Your task to perform on an android device: Is it going to rain tomorrow? Image 0: 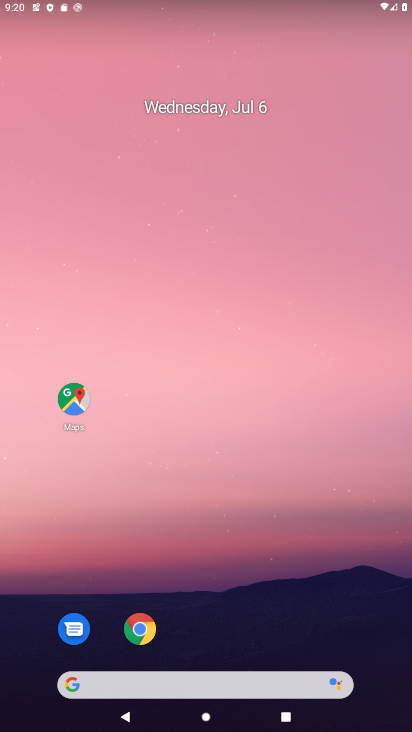
Step 0: click (237, 50)
Your task to perform on an android device: Is it going to rain tomorrow? Image 1: 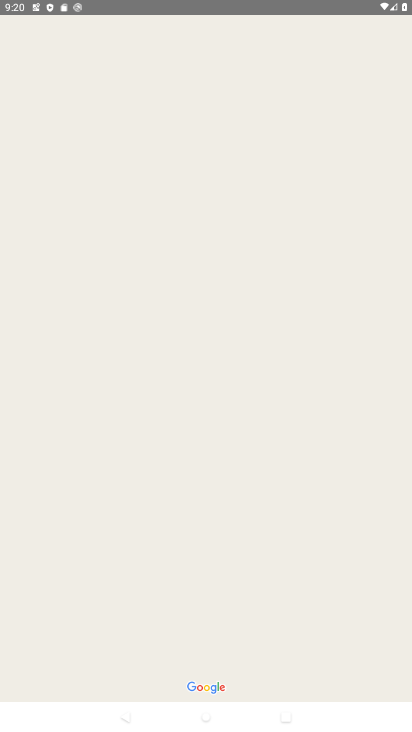
Step 1: press home button
Your task to perform on an android device: Is it going to rain tomorrow? Image 2: 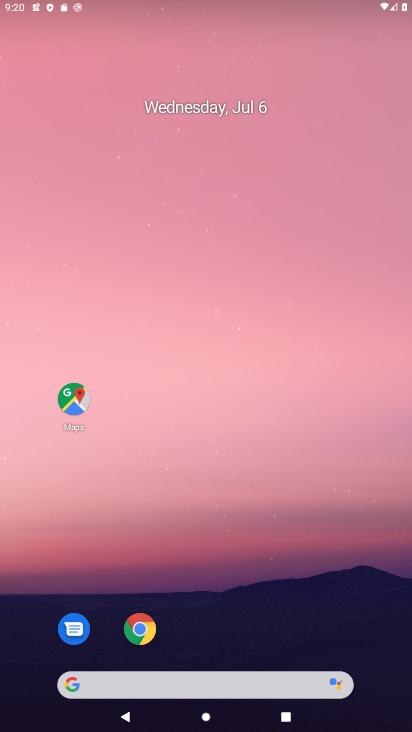
Step 2: drag from (220, 632) to (265, 54)
Your task to perform on an android device: Is it going to rain tomorrow? Image 3: 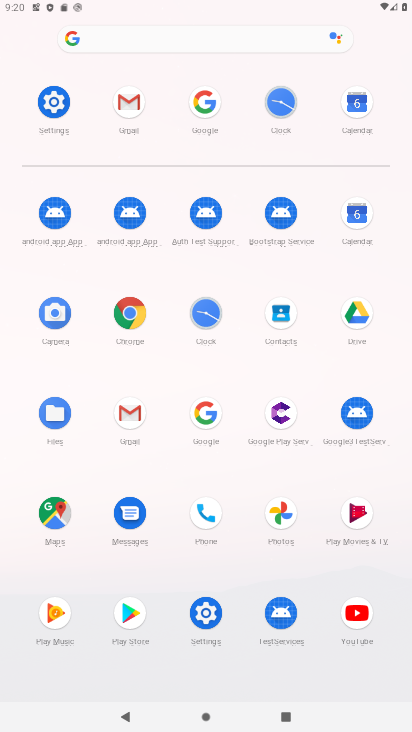
Step 3: click (198, 104)
Your task to perform on an android device: Is it going to rain tomorrow? Image 4: 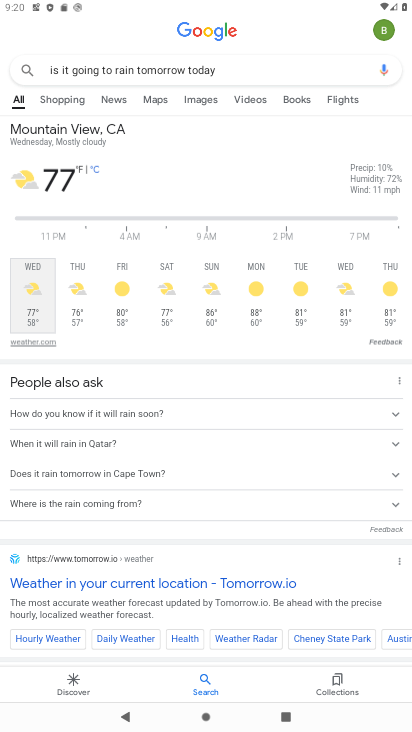
Step 4: click (240, 63)
Your task to perform on an android device: Is it going to rain tomorrow? Image 5: 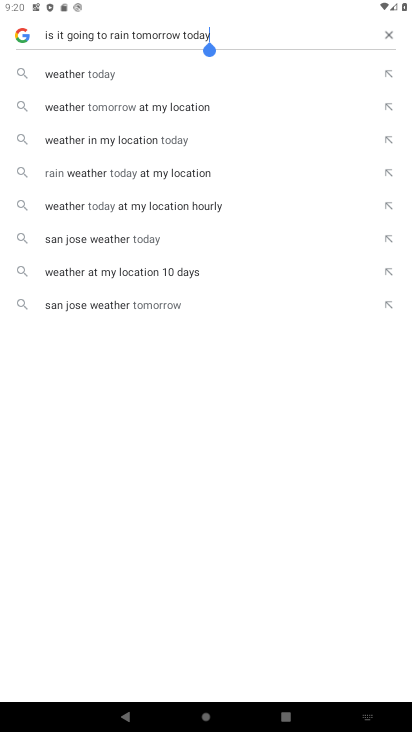
Step 5: click (383, 31)
Your task to perform on an android device: Is it going to rain tomorrow? Image 6: 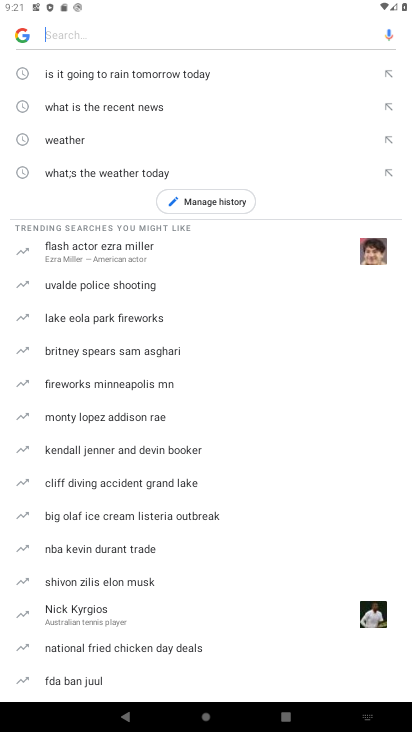
Step 6: type "is it going to rain tomorrow?"
Your task to perform on an android device: Is it going to rain tomorrow? Image 7: 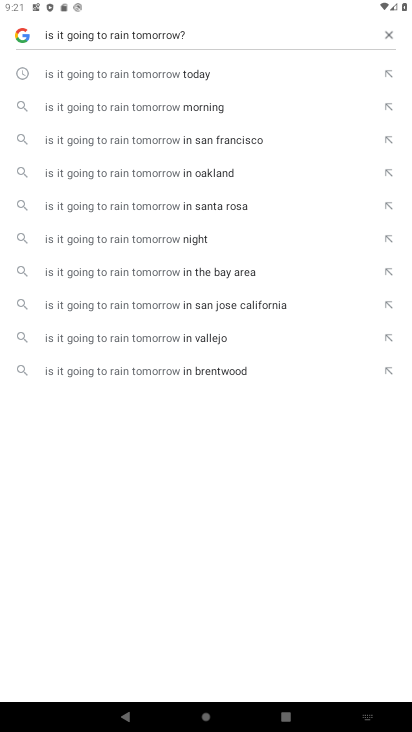
Step 7: click (106, 116)
Your task to perform on an android device: Is it going to rain tomorrow? Image 8: 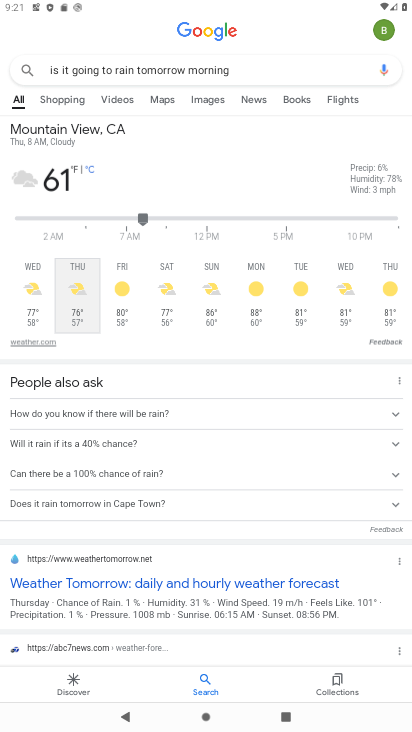
Step 8: task complete